Your task to perform on an android device: turn off translation in the chrome app Image 0: 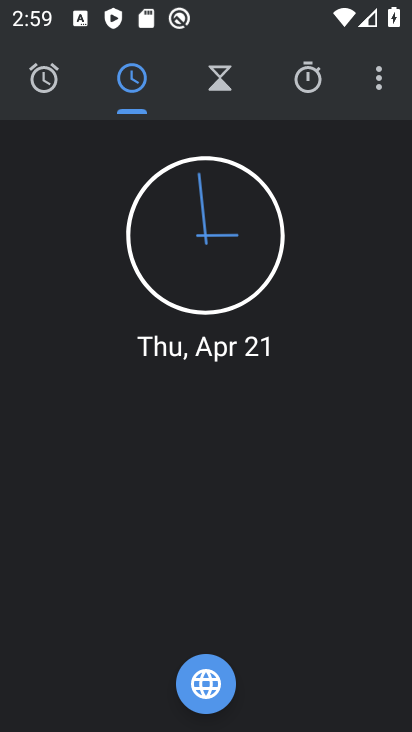
Step 0: press home button
Your task to perform on an android device: turn off translation in the chrome app Image 1: 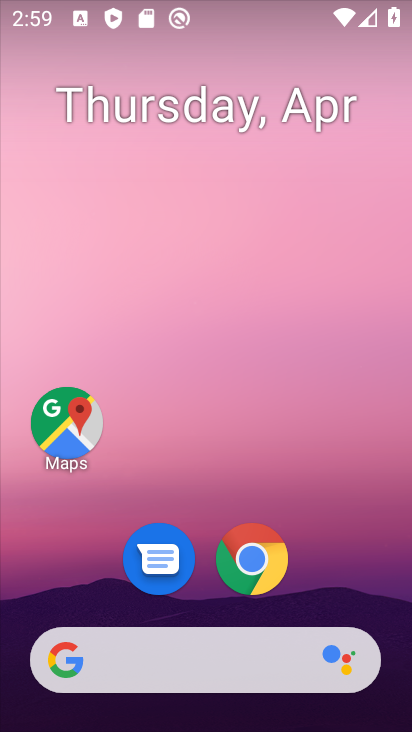
Step 1: click (276, 550)
Your task to perform on an android device: turn off translation in the chrome app Image 2: 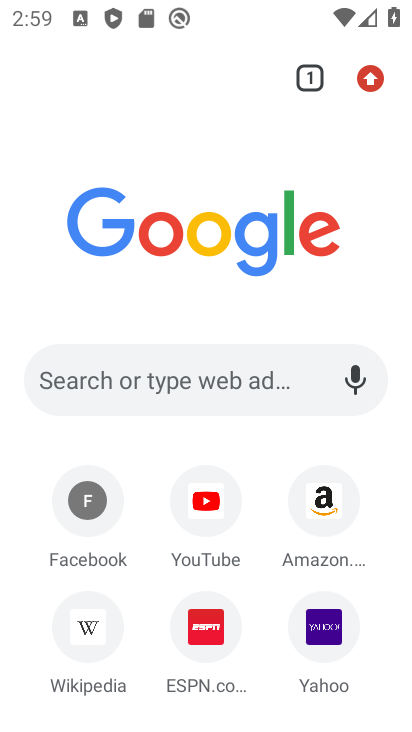
Step 2: click (363, 81)
Your task to perform on an android device: turn off translation in the chrome app Image 3: 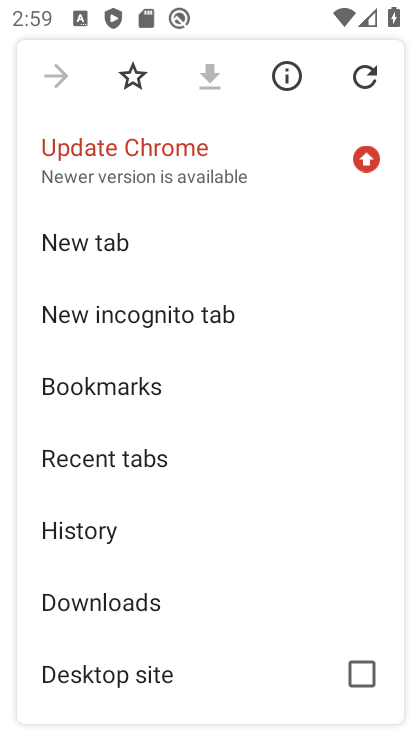
Step 3: drag from (206, 533) to (217, 139)
Your task to perform on an android device: turn off translation in the chrome app Image 4: 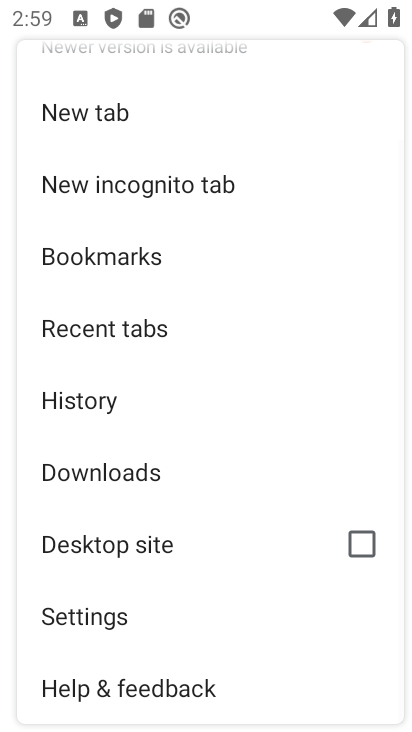
Step 4: click (138, 608)
Your task to perform on an android device: turn off translation in the chrome app Image 5: 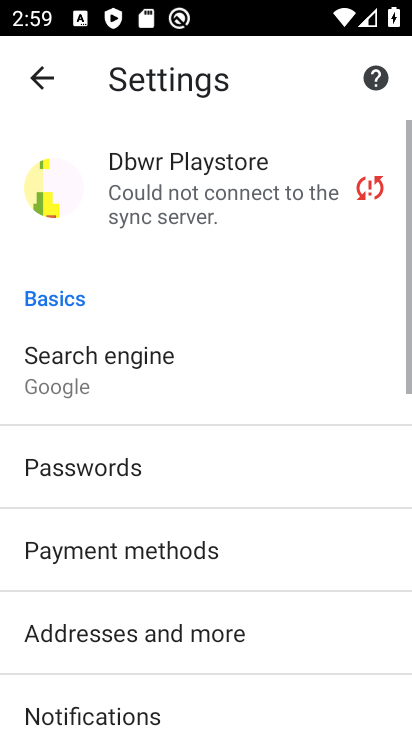
Step 5: drag from (171, 608) to (217, 213)
Your task to perform on an android device: turn off translation in the chrome app Image 6: 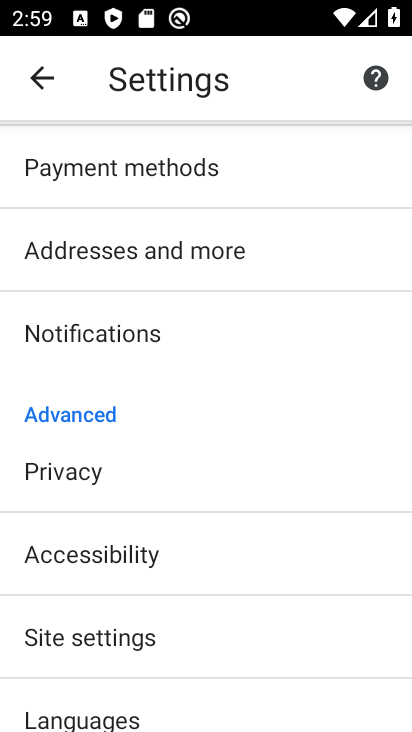
Step 6: click (125, 692)
Your task to perform on an android device: turn off translation in the chrome app Image 7: 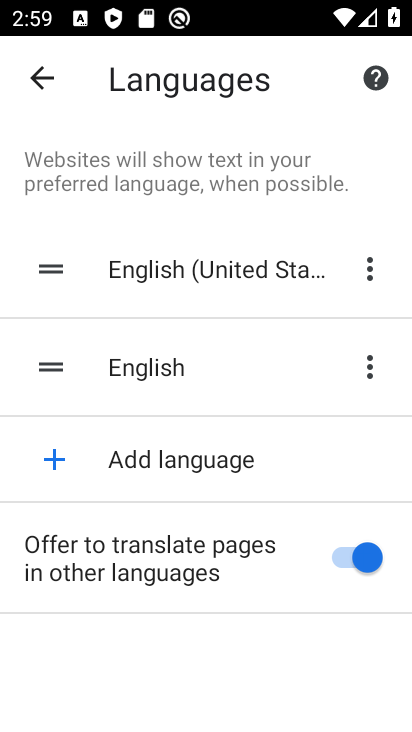
Step 7: click (371, 562)
Your task to perform on an android device: turn off translation in the chrome app Image 8: 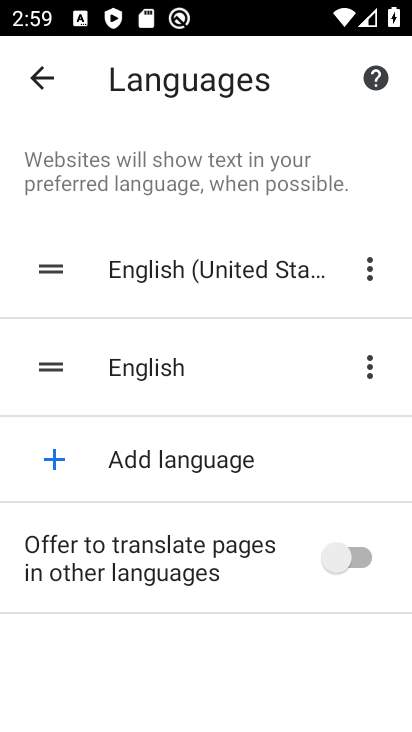
Step 8: task complete